Your task to perform on an android device: turn off notifications settings in the gmail app Image 0: 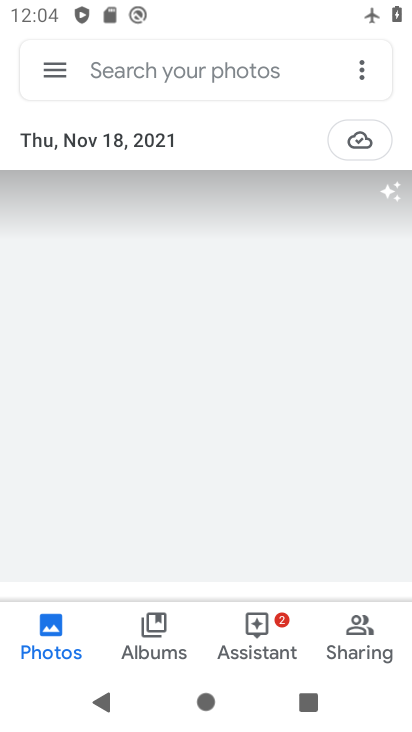
Step 0: press home button
Your task to perform on an android device: turn off notifications settings in the gmail app Image 1: 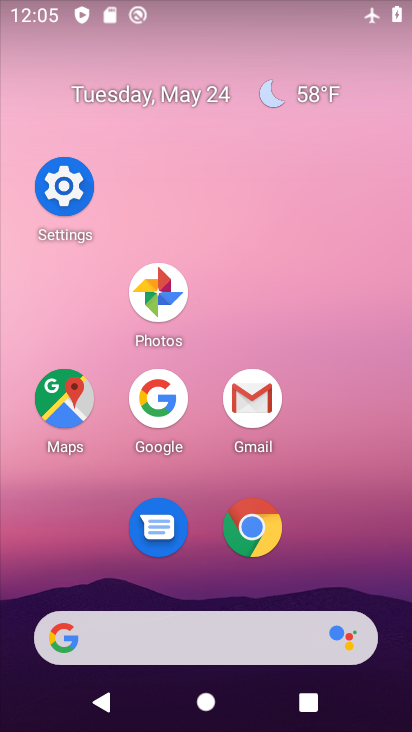
Step 1: click (255, 392)
Your task to perform on an android device: turn off notifications settings in the gmail app Image 2: 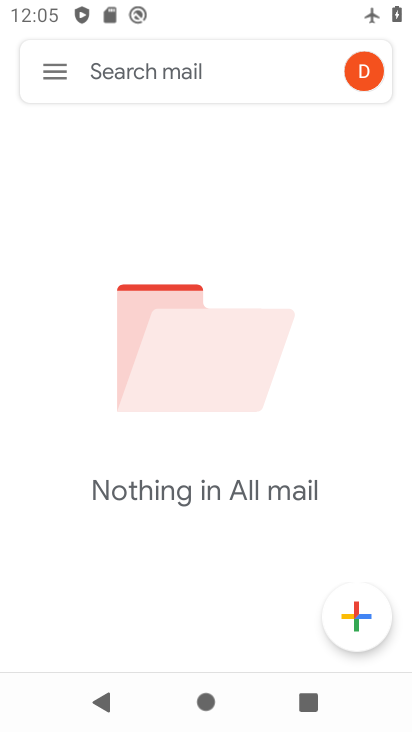
Step 2: click (38, 69)
Your task to perform on an android device: turn off notifications settings in the gmail app Image 3: 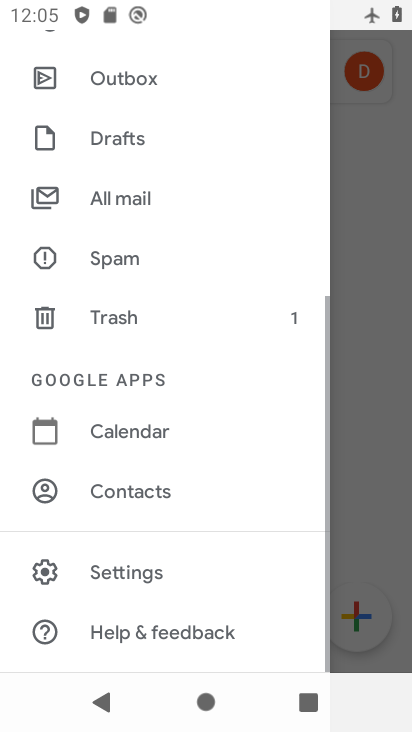
Step 3: drag from (161, 474) to (195, 163)
Your task to perform on an android device: turn off notifications settings in the gmail app Image 4: 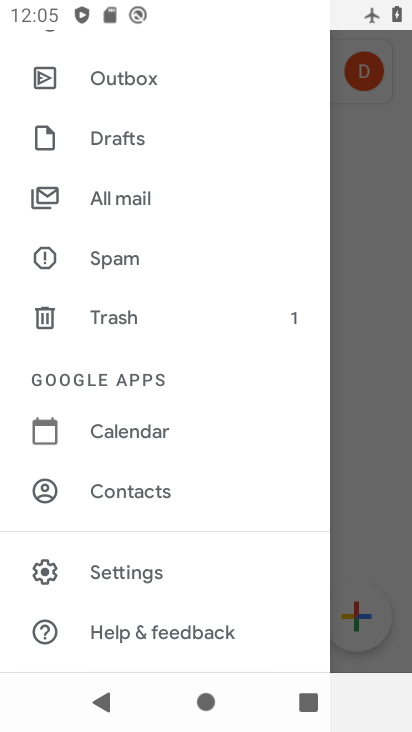
Step 4: click (165, 563)
Your task to perform on an android device: turn off notifications settings in the gmail app Image 5: 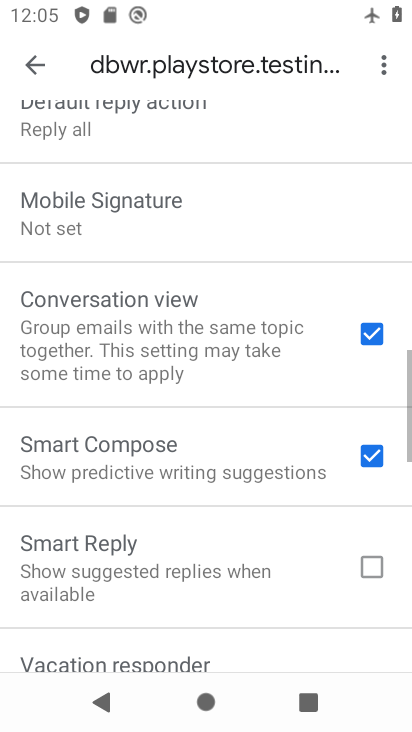
Step 5: drag from (236, 246) to (262, 665)
Your task to perform on an android device: turn off notifications settings in the gmail app Image 6: 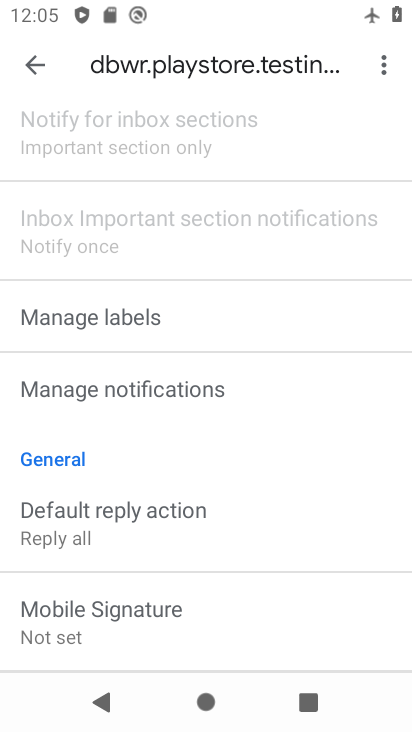
Step 6: drag from (301, 319) to (324, 596)
Your task to perform on an android device: turn off notifications settings in the gmail app Image 7: 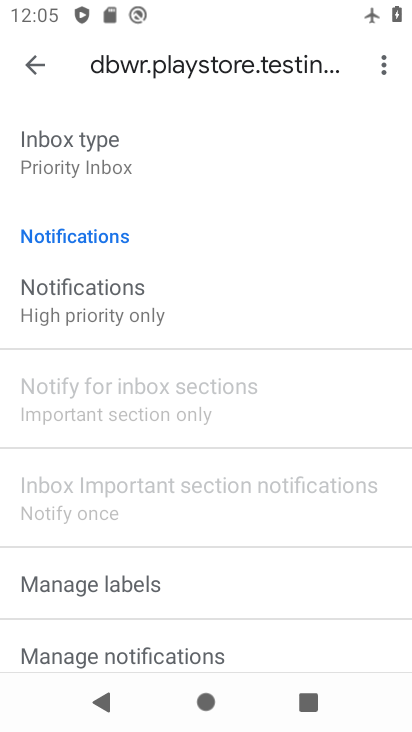
Step 7: click (245, 297)
Your task to perform on an android device: turn off notifications settings in the gmail app Image 8: 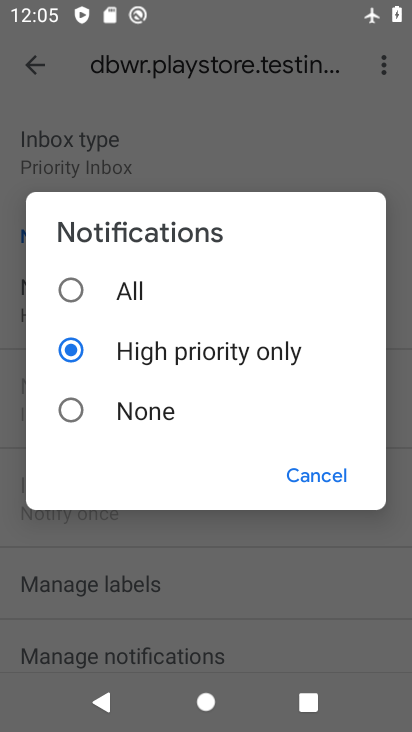
Step 8: click (175, 401)
Your task to perform on an android device: turn off notifications settings in the gmail app Image 9: 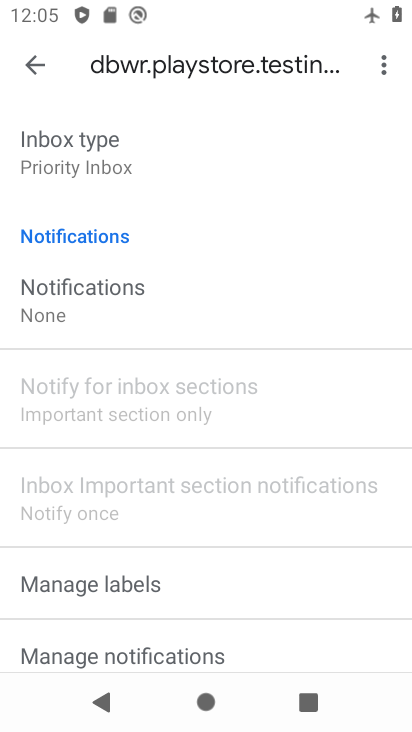
Step 9: task complete